Your task to perform on an android device: Go to Google maps Image 0: 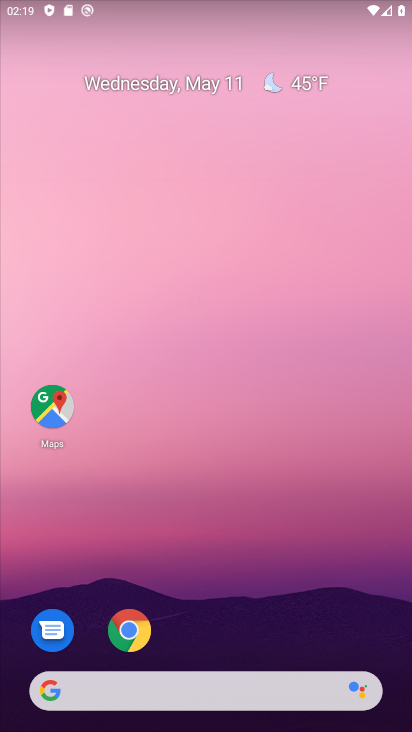
Step 0: drag from (205, 727) to (203, 459)
Your task to perform on an android device: Go to Google maps Image 1: 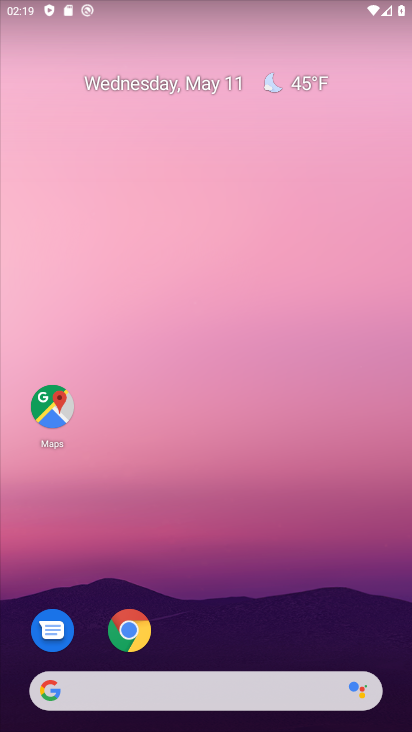
Step 1: drag from (200, 723) to (213, 114)
Your task to perform on an android device: Go to Google maps Image 2: 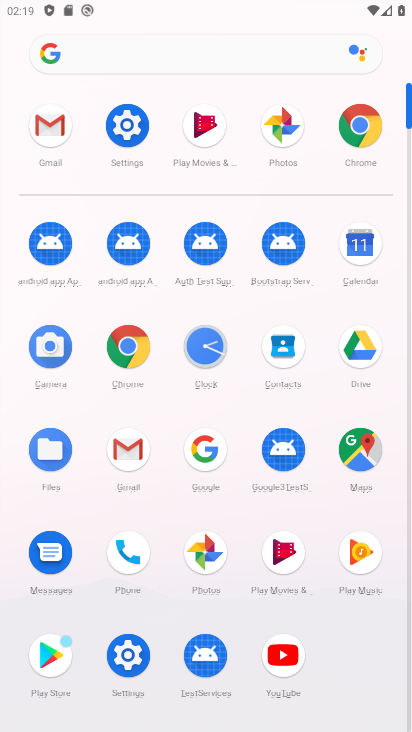
Step 2: click (364, 452)
Your task to perform on an android device: Go to Google maps Image 3: 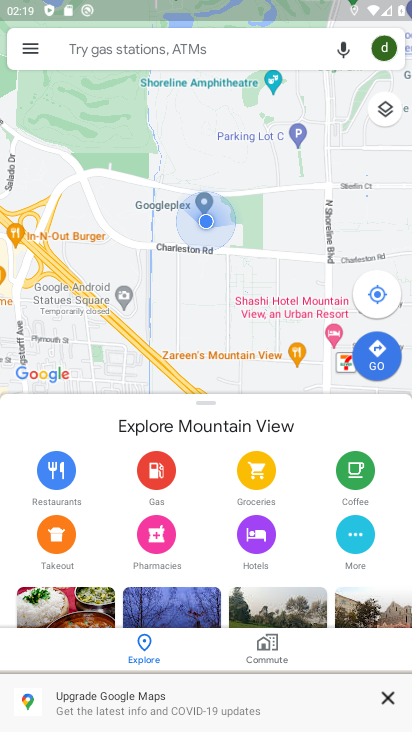
Step 3: task complete